Your task to perform on an android device: set the stopwatch Image 0: 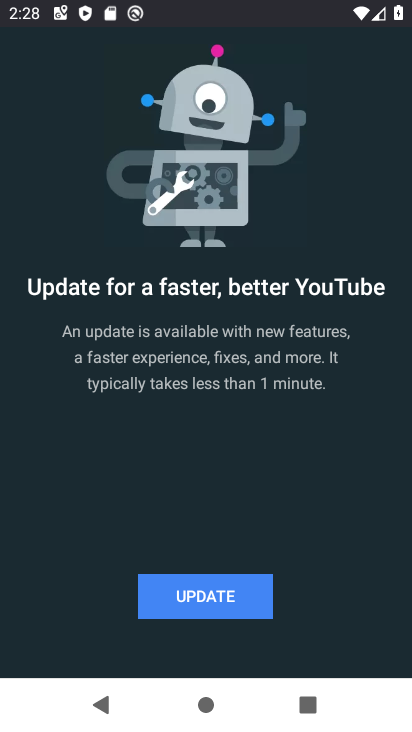
Step 0: press home button
Your task to perform on an android device: set the stopwatch Image 1: 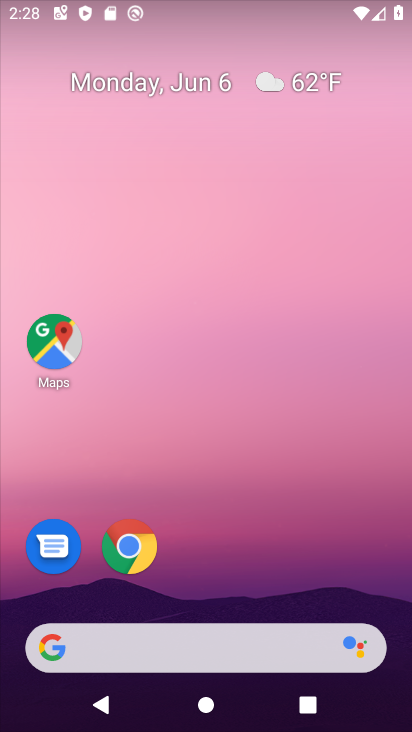
Step 1: drag from (329, 436) to (334, 186)
Your task to perform on an android device: set the stopwatch Image 2: 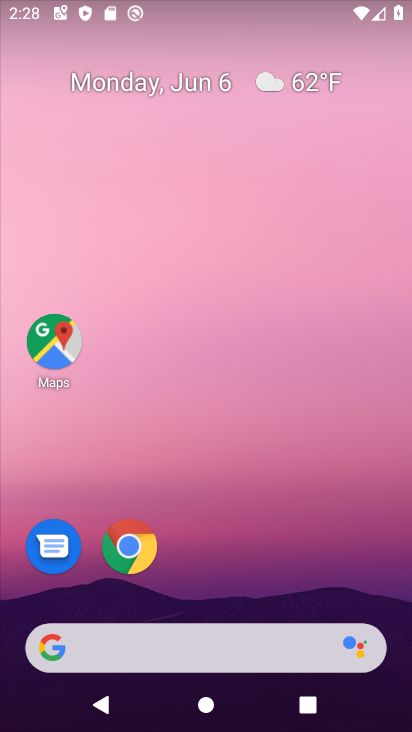
Step 2: drag from (304, 261) to (308, 61)
Your task to perform on an android device: set the stopwatch Image 3: 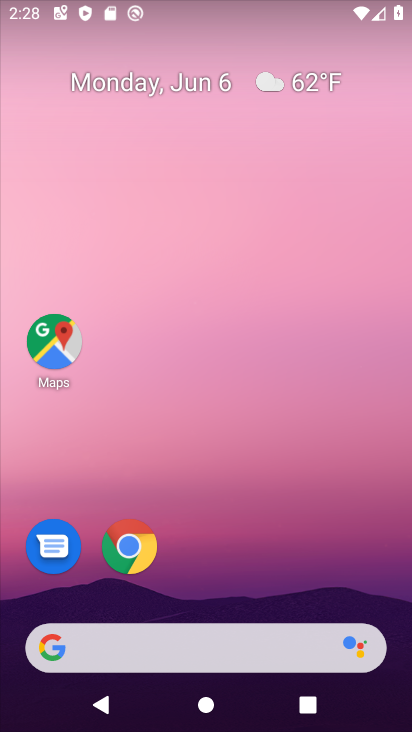
Step 3: drag from (325, 522) to (310, 125)
Your task to perform on an android device: set the stopwatch Image 4: 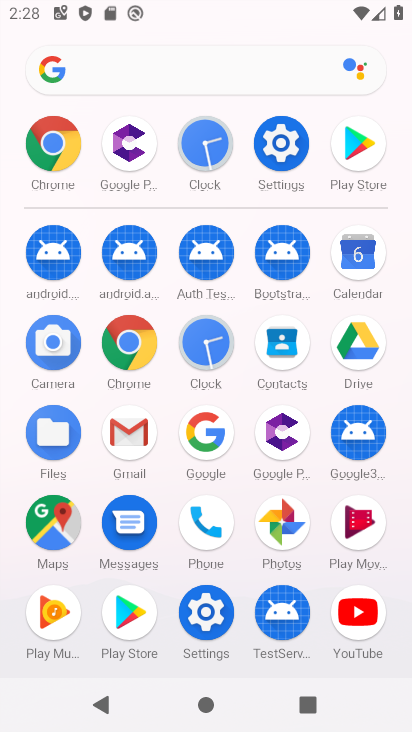
Step 4: click (201, 148)
Your task to perform on an android device: set the stopwatch Image 5: 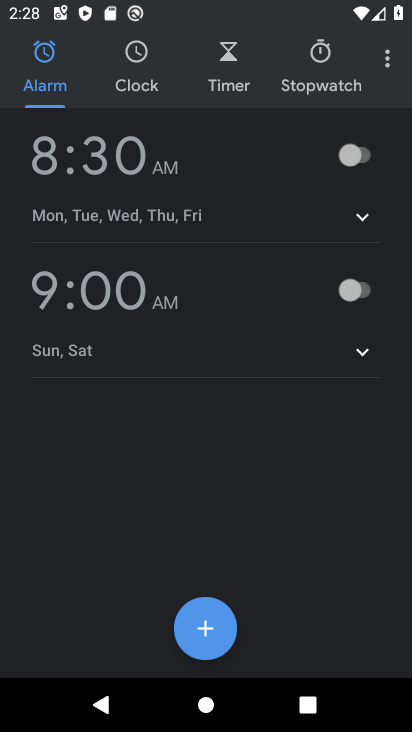
Step 5: click (318, 70)
Your task to perform on an android device: set the stopwatch Image 6: 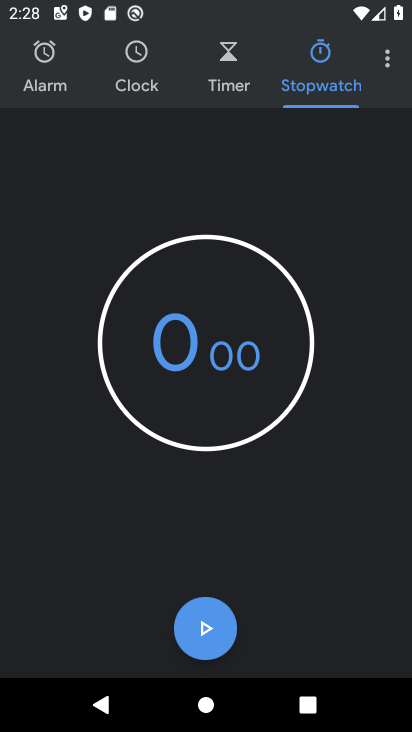
Step 6: click (205, 646)
Your task to perform on an android device: set the stopwatch Image 7: 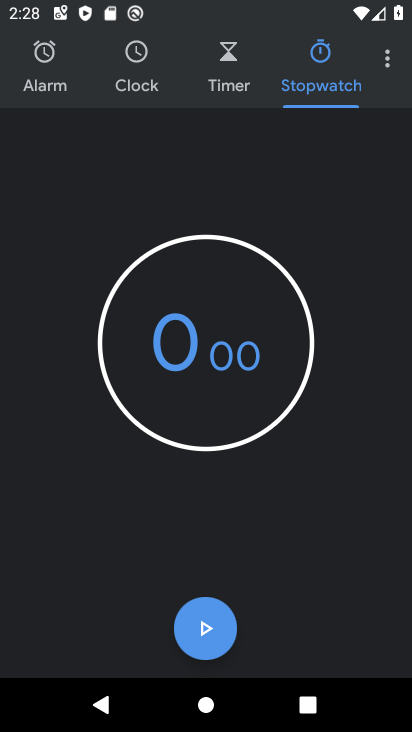
Step 7: click (205, 645)
Your task to perform on an android device: set the stopwatch Image 8: 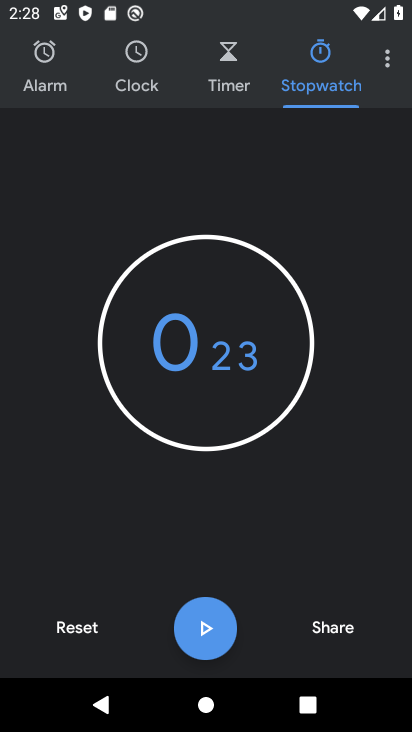
Step 8: click (205, 638)
Your task to perform on an android device: set the stopwatch Image 9: 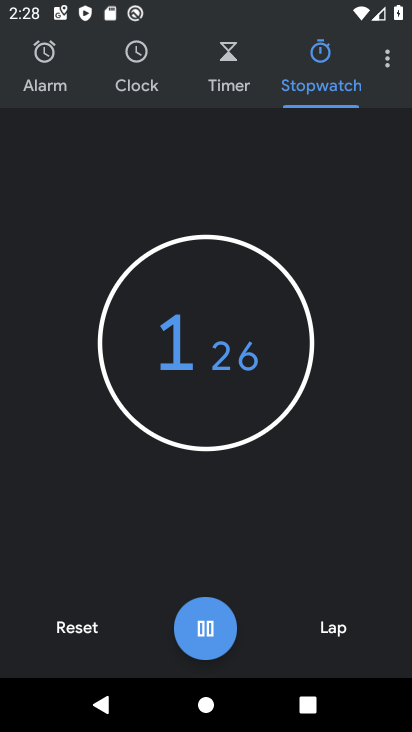
Step 9: click (205, 637)
Your task to perform on an android device: set the stopwatch Image 10: 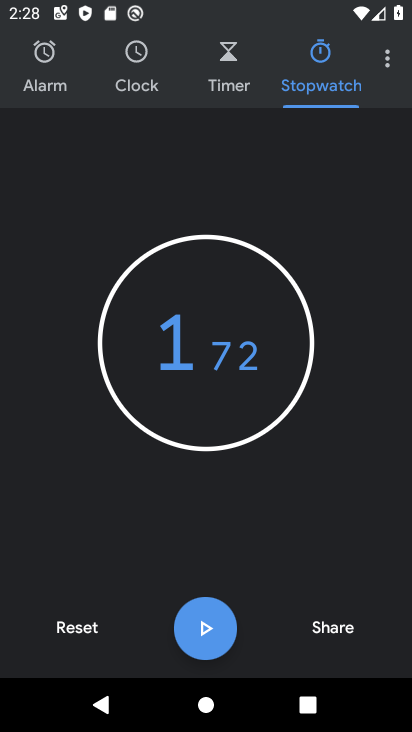
Step 10: task complete